Your task to perform on an android device: Search for good Japanese restaurants Image 0: 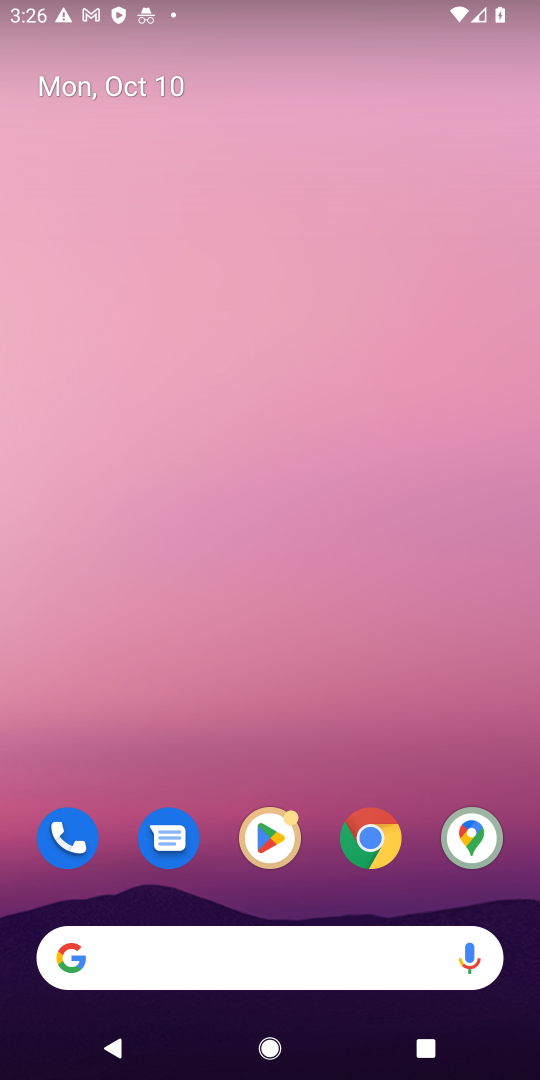
Step 0: click (503, 280)
Your task to perform on an android device: Search for good Japanese restaurants Image 1: 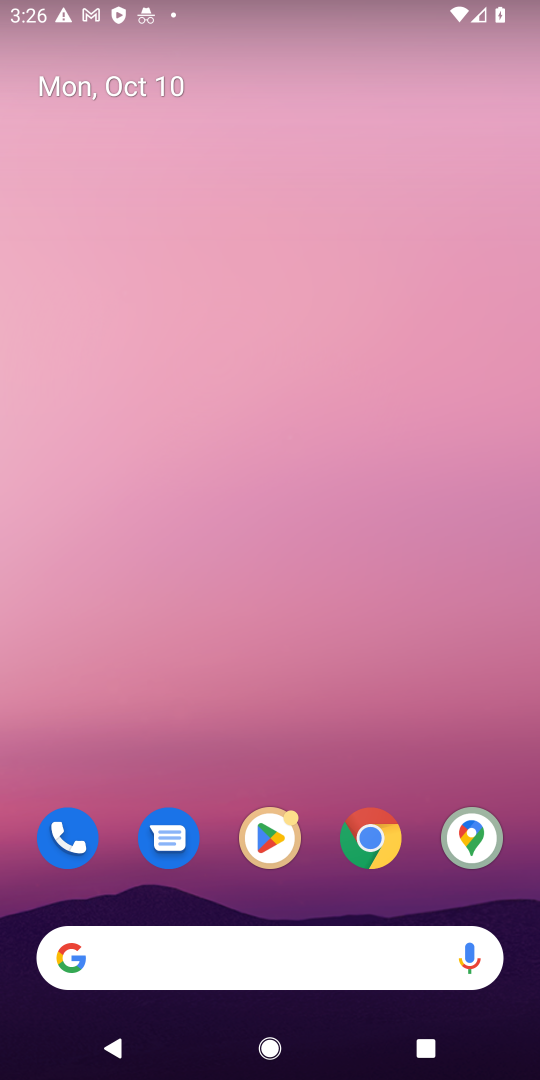
Step 1: click (361, 840)
Your task to perform on an android device: Search for good Japanese restaurants Image 2: 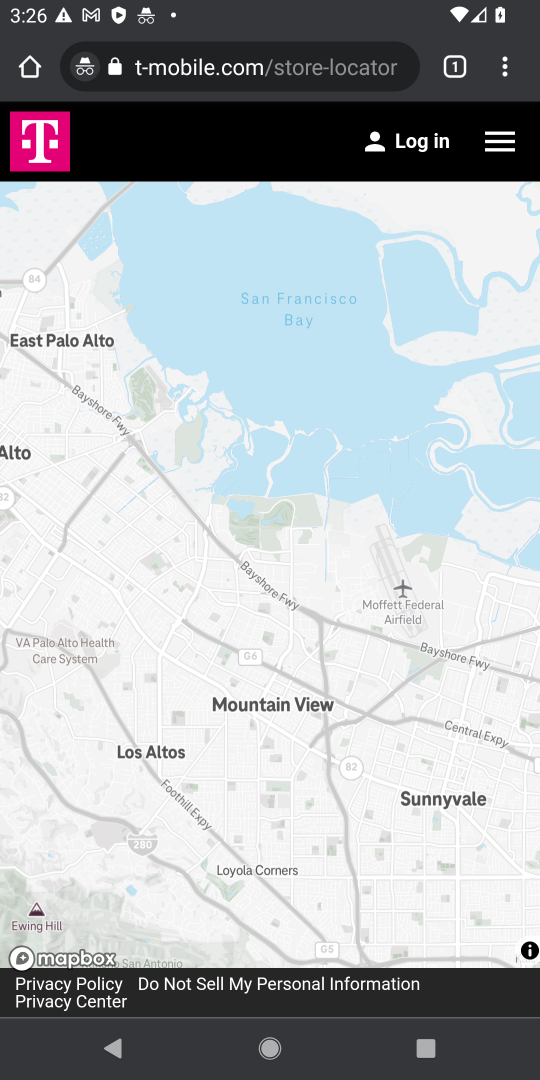
Step 2: click (224, 78)
Your task to perform on an android device: Search for good Japanese restaurants Image 3: 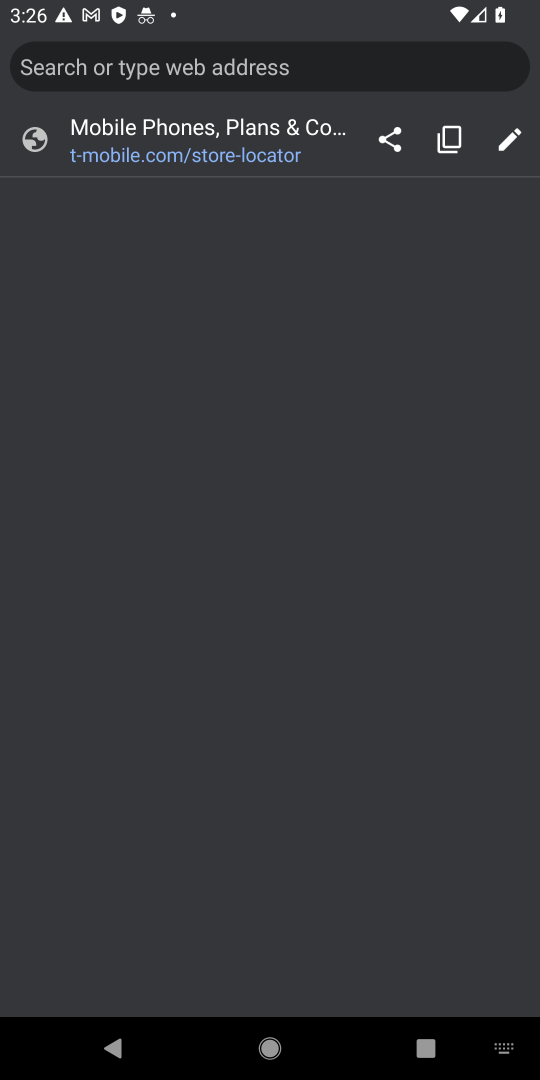
Step 3: click (227, 55)
Your task to perform on an android device: Search for good Japanese restaurants Image 4: 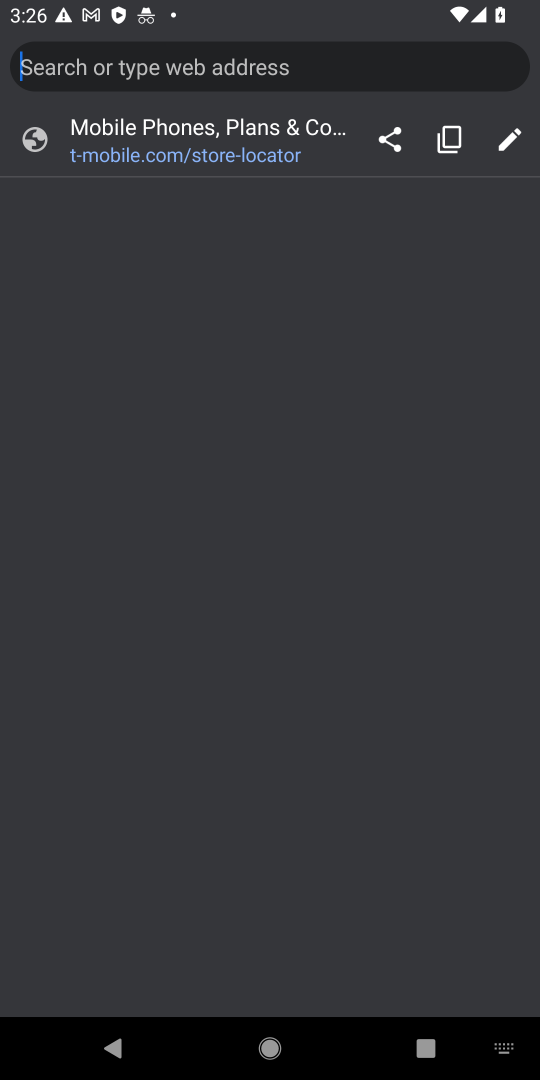
Step 4: type "good Japanese restaurantns"
Your task to perform on an android device: Search for good Japanese restaurants Image 5: 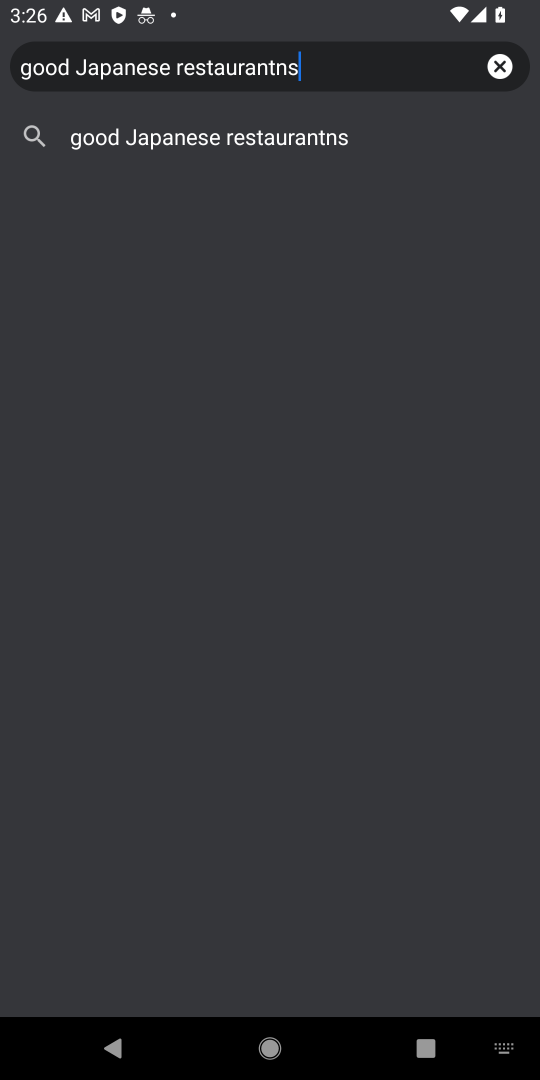
Step 5: click (314, 165)
Your task to perform on an android device: Search for good Japanese restaurants Image 6: 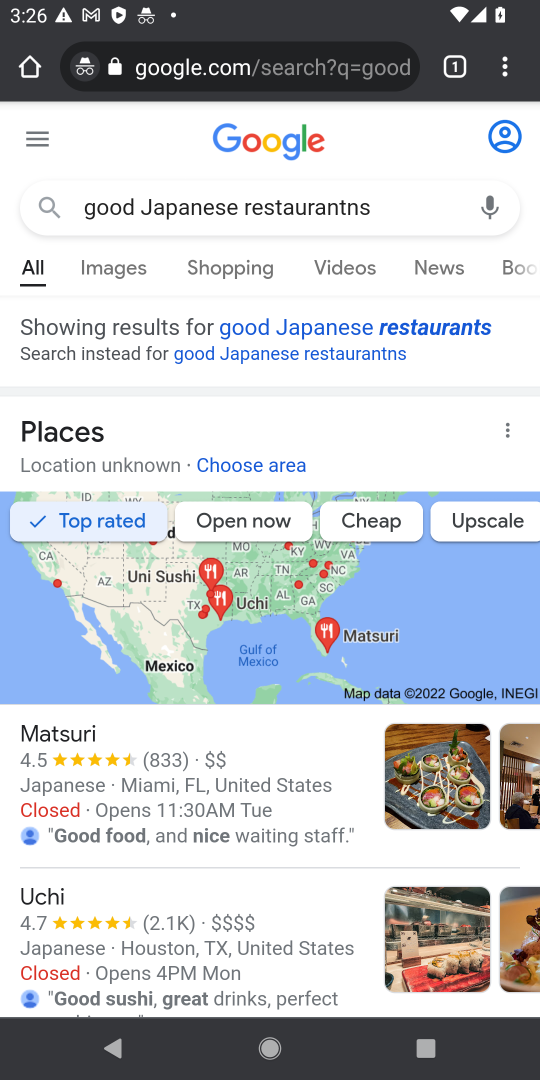
Step 6: task complete